Your task to perform on an android device: What is the recent news? Image 0: 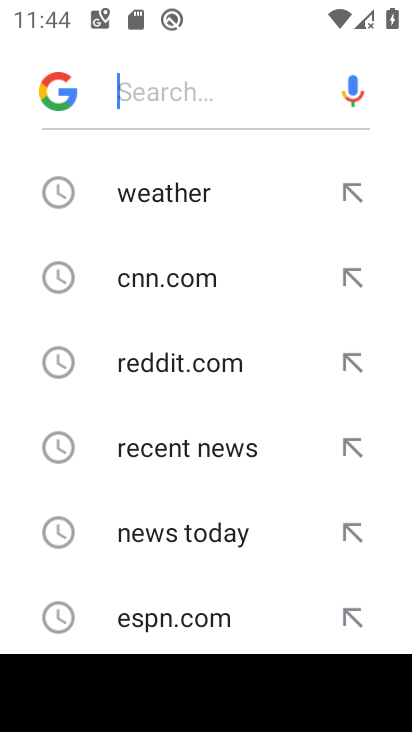
Step 0: click (219, 456)
Your task to perform on an android device: What is the recent news? Image 1: 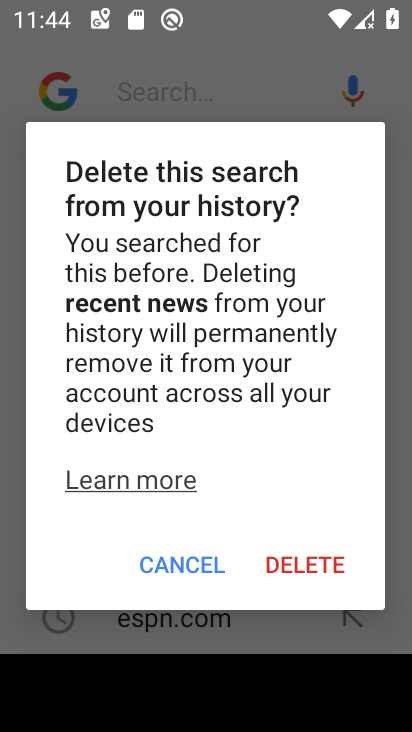
Step 1: click (207, 572)
Your task to perform on an android device: What is the recent news? Image 2: 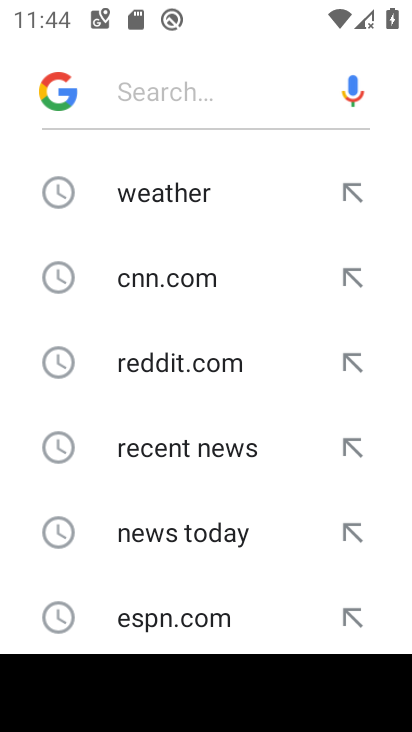
Step 2: click (354, 453)
Your task to perform on an android device: What is the recent news? Image 3: 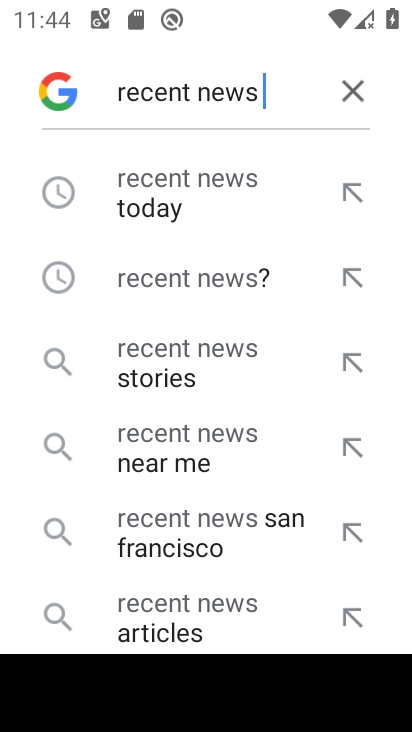
Step 3: click (244, 189)
Your task to perform on an android device: What is the recent news? Image 4: 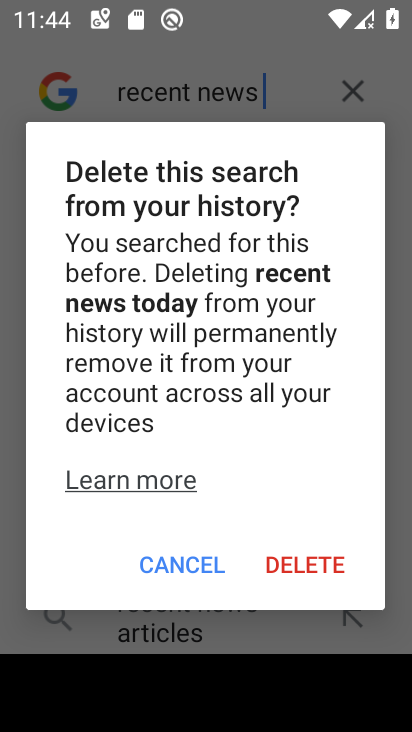
Step 4: task complete